Your task to perform on an android device: Add "razer blade" to the cart on costco.com Image 0: 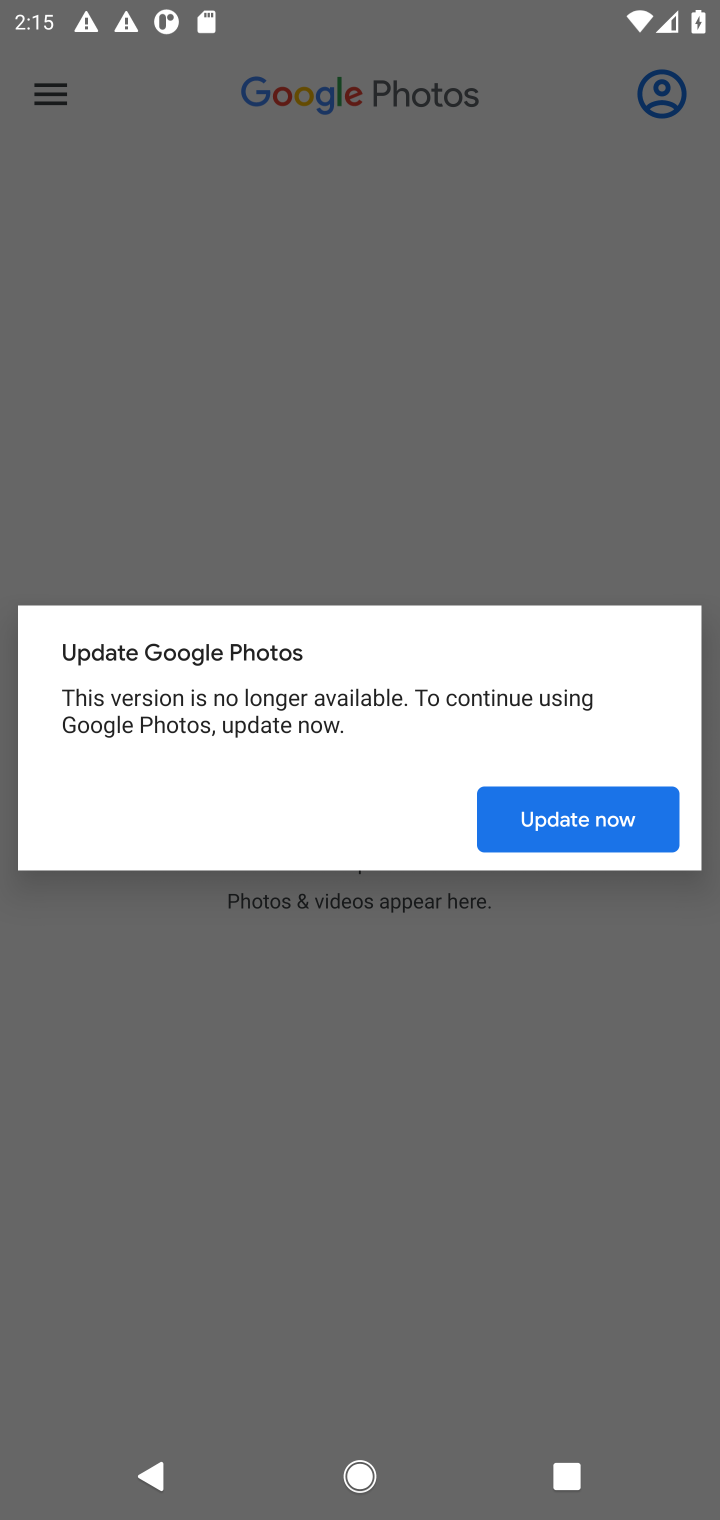
Step 0: press home button
Your task to perform on an android device: Add "razer blade" to the cart on costco.com Image 1: 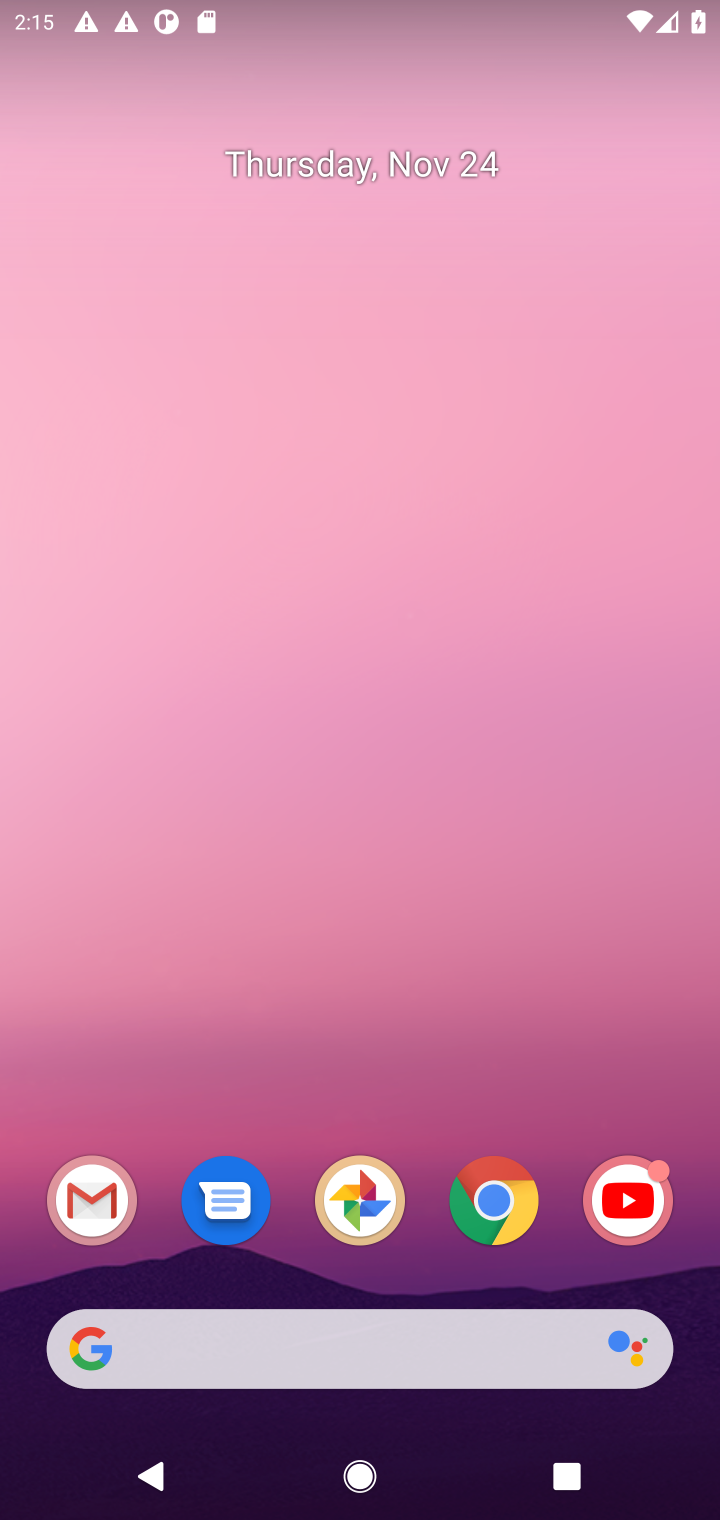
Step 1: click (256, 1361)
Your task to perform on an android device: Add "razer blade" to the cart on costco.com Image 2: 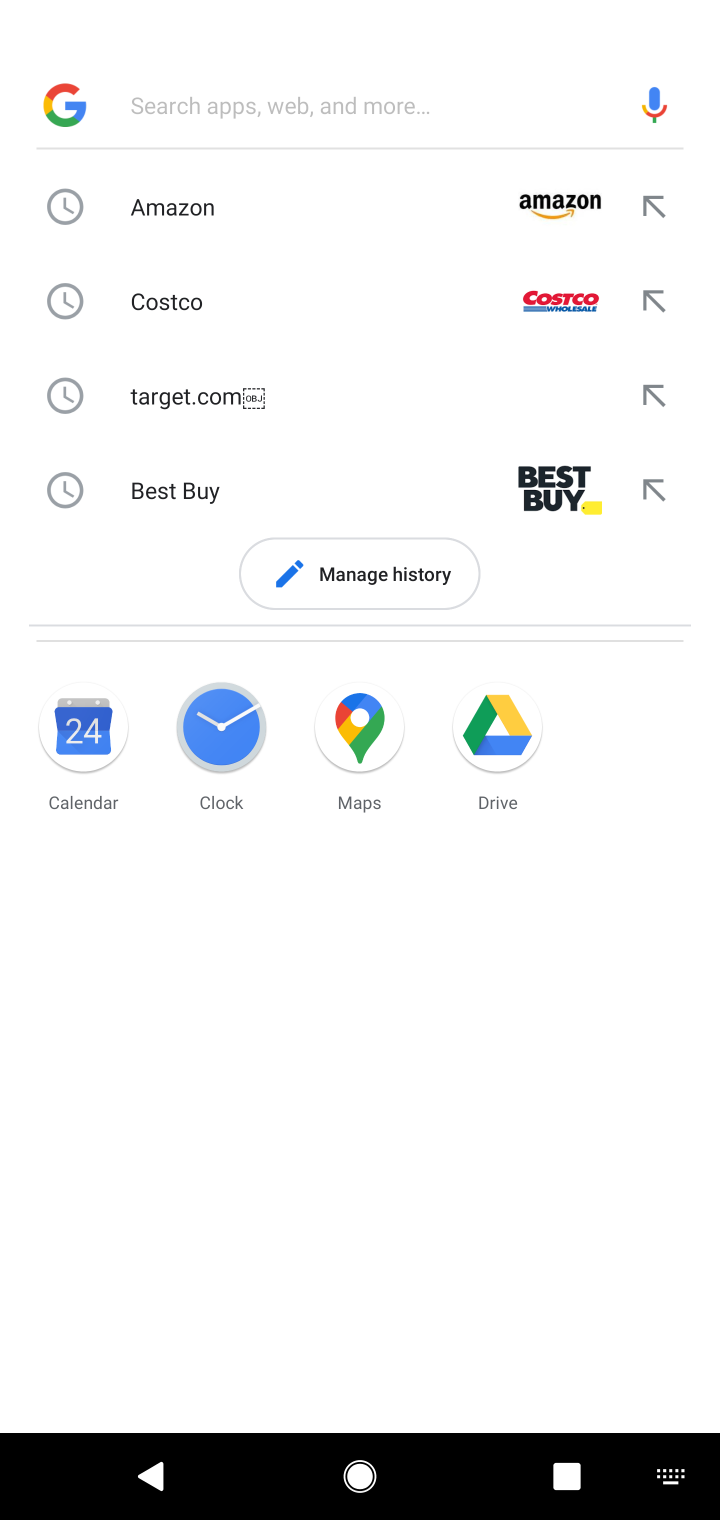
Step 2: type "costcoi.com"
Your task to perform on an android device: Add "razer blade" to the cart on costco.com Image 3: 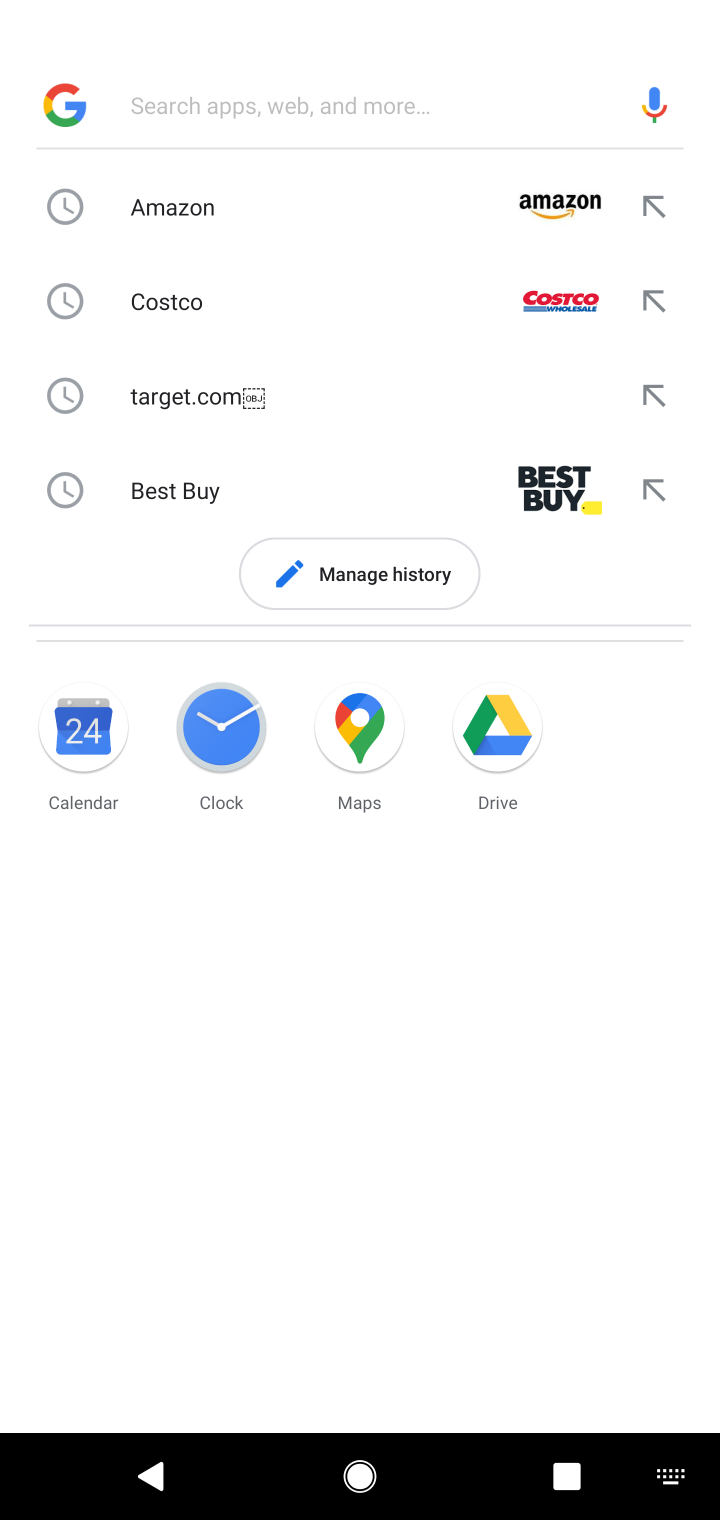
Step 3: click (179, 338)
Your task to perform on an android device: Add "razer blade" to the cart on costco.com Image 4: 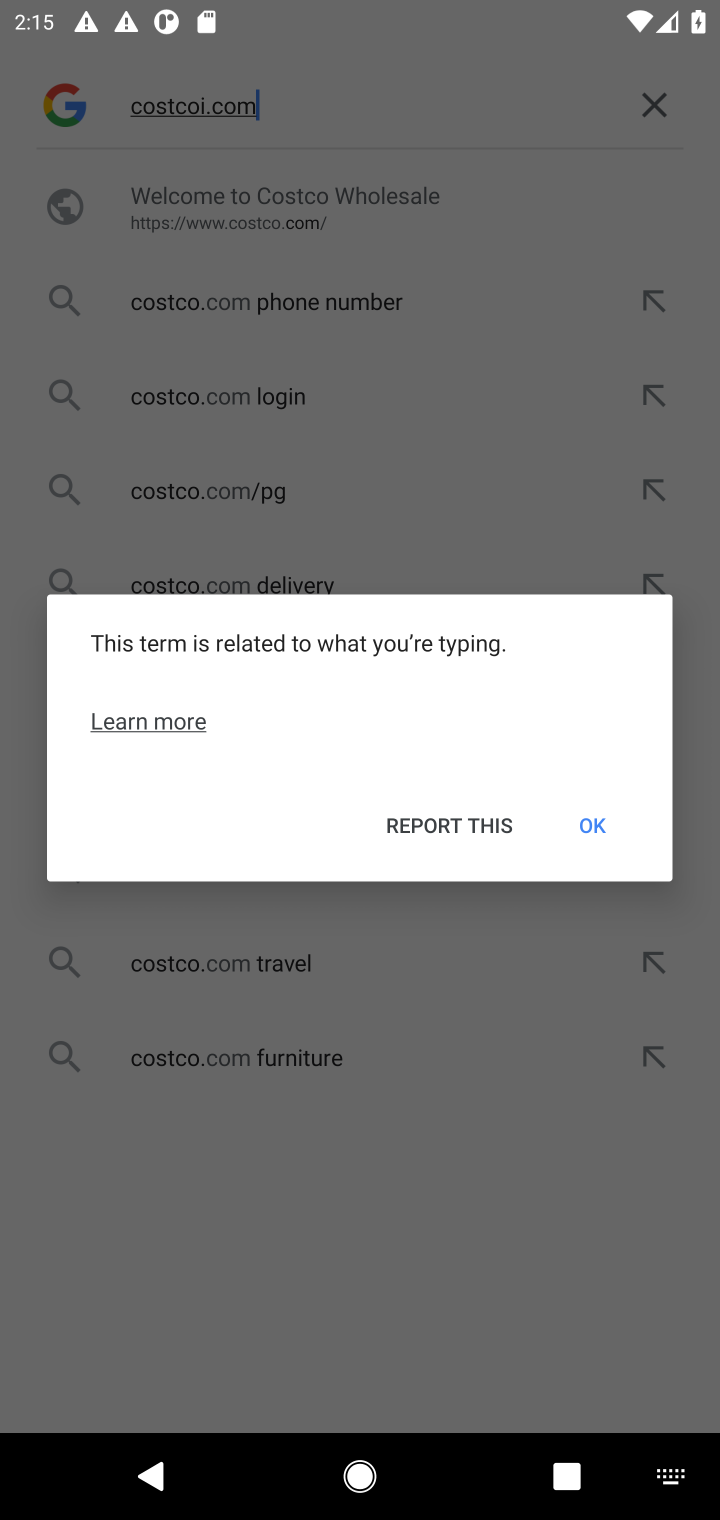
Step 4: click (588, 828)
Your task to perform on an android device: Add "razer blade" to the cart on costco.com Image 5: 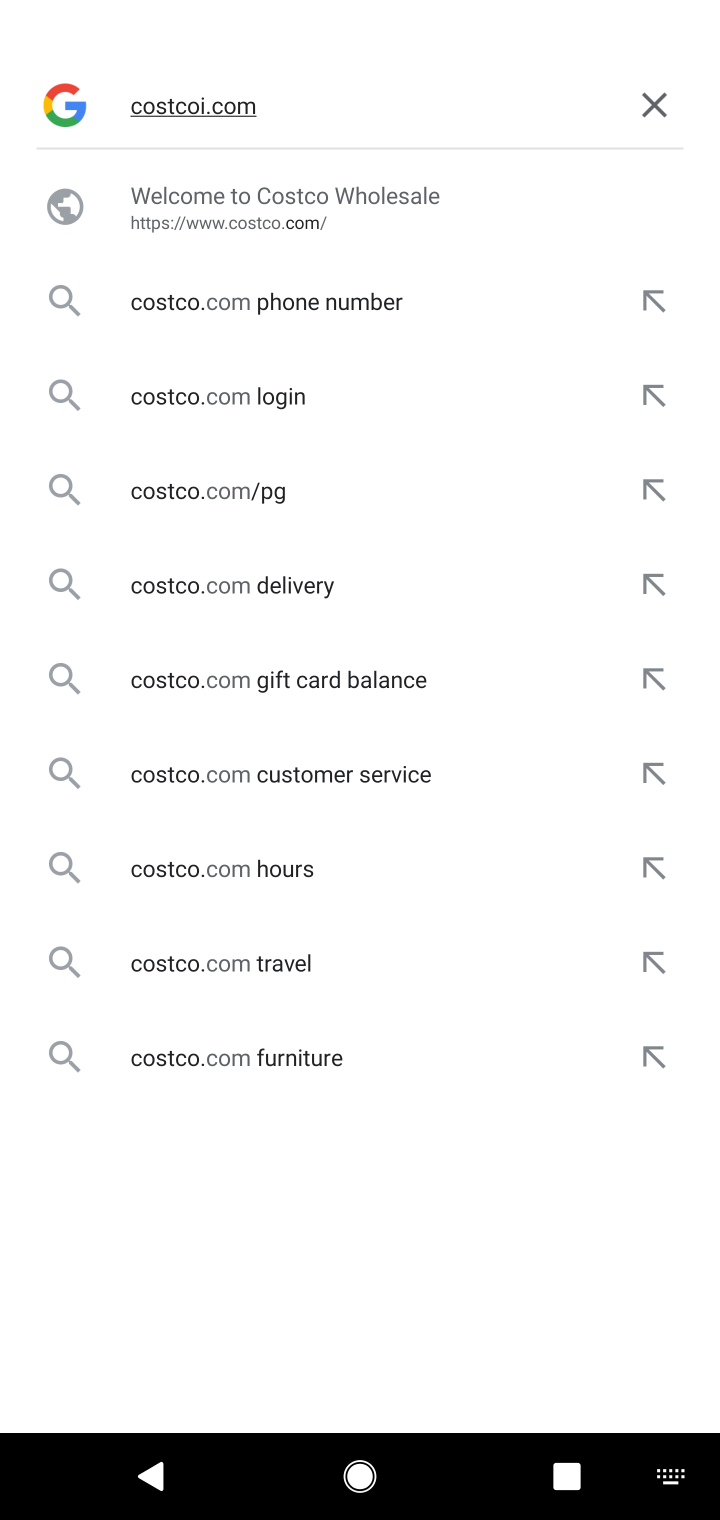
Step 5: click (333, 207)
Your task to perform on an android device: Add "razer blade" to the cart on costco.com Image 6: 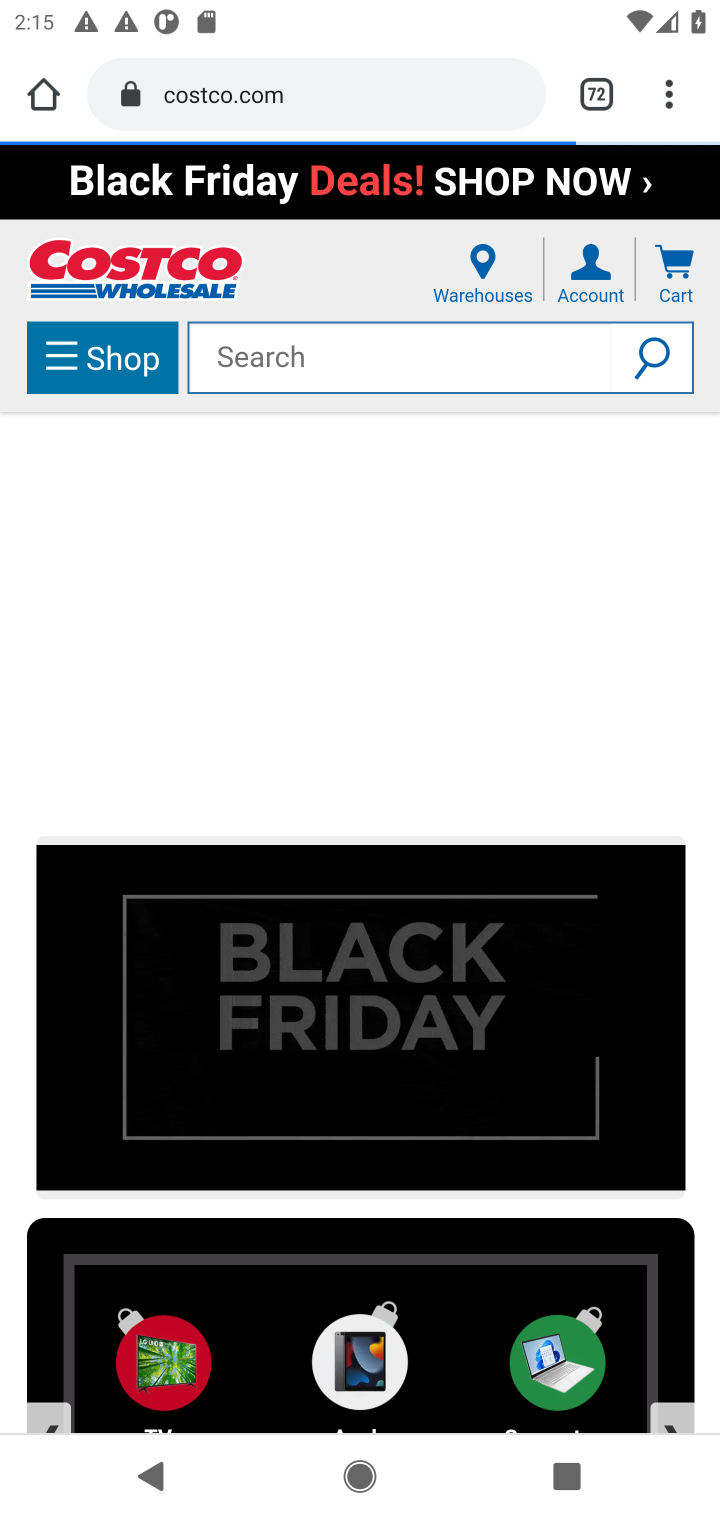
Step 6: task complete